Your task to perform on an android device: Go to ESPN.com Image 0: 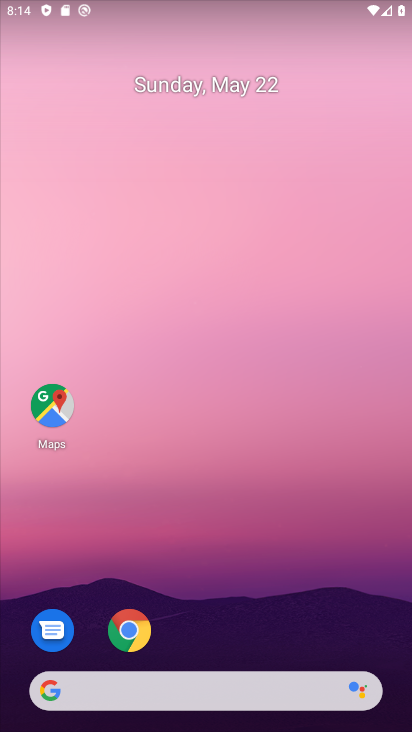
Step 0: drag from (332, 622) to (304, 73)
Your task to perform on an android device: Go to ESPN.com Image 1: 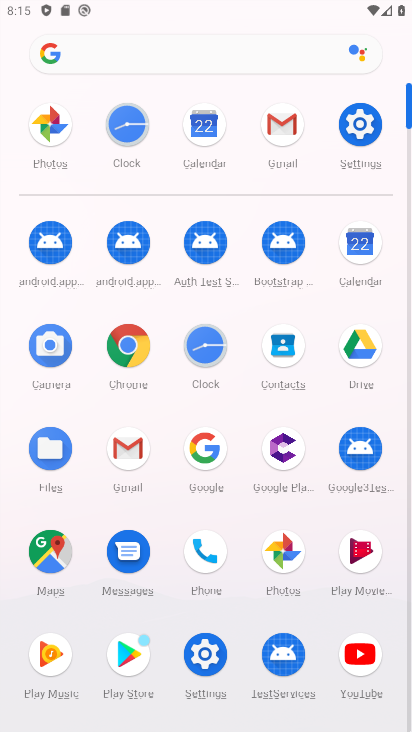
Step 1: click (140, 346)
Your task to perform on an android device: Go to ESPN.com Image 2: 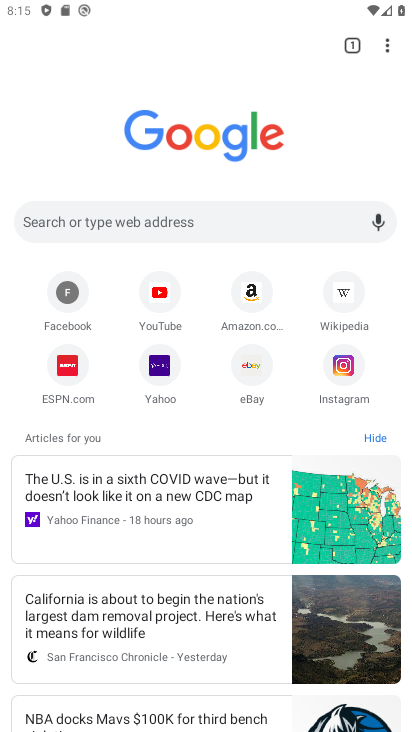
Step 2: click (65, 368)
Your task to perform on an android device: Go to ESPN.com Image 3: 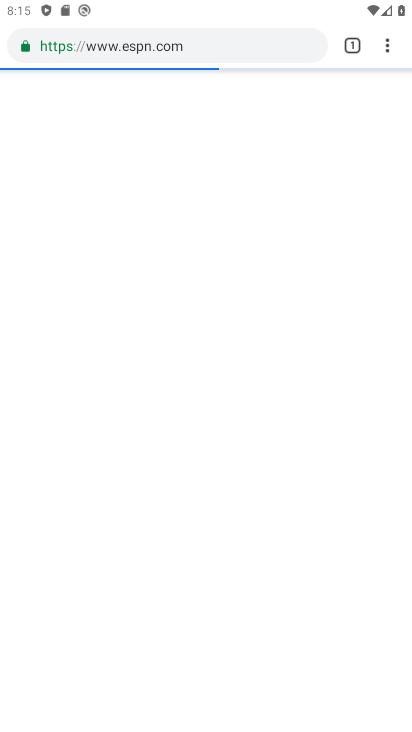
Step 3: task complete